Your task to perform on an android device: delete location history Image 0: 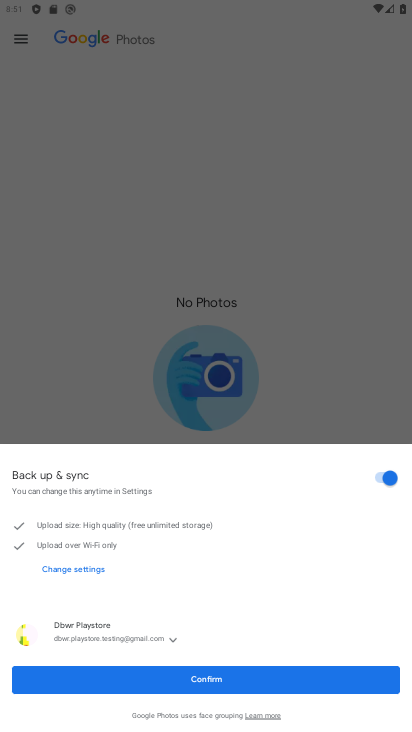
Step 0: press home button
Your task to perform on an android device: delete location history Image 1: 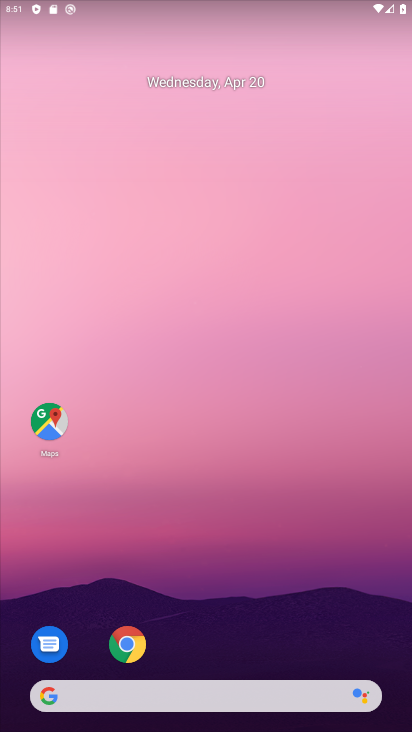
Step 1: drag from (189, 679) to (199, 280)
Your task to perform on an android device: delete location history Image 2: 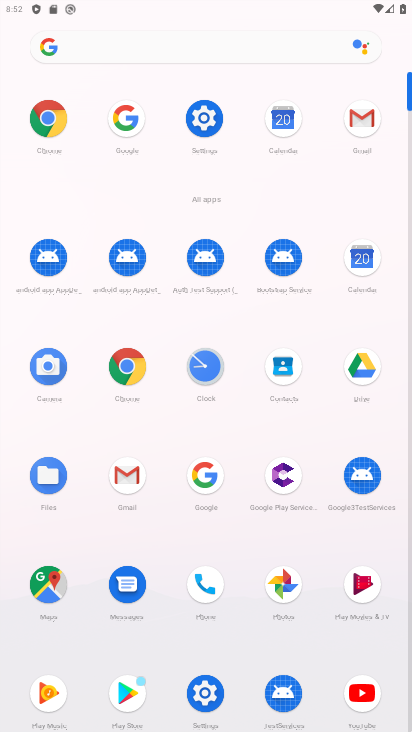
Step 2: click (209, 115)
Your task to perform on an android device: delete location history Image 3: 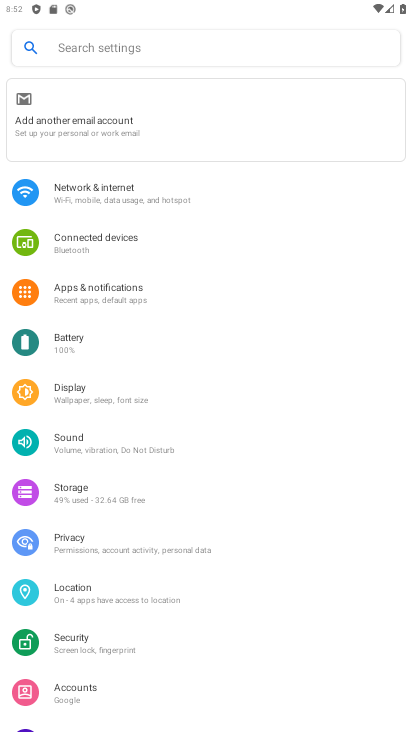
Step 3: click (78, 590)
Your task to perform on an android device: delete location history Image 4: 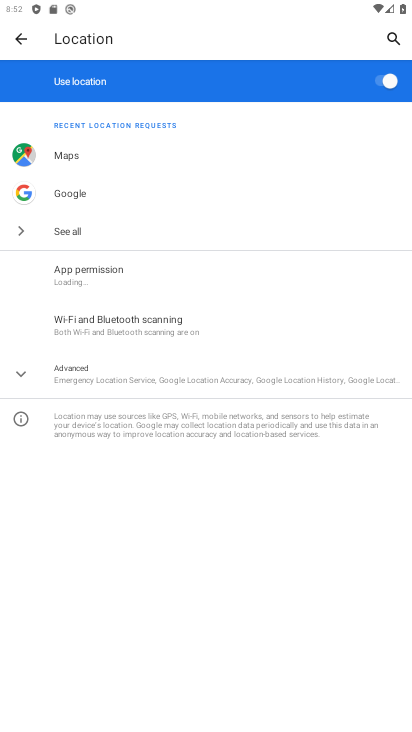
Step 4: click (104, 375)
Your task to perform on an android device: delete location history Image 5: 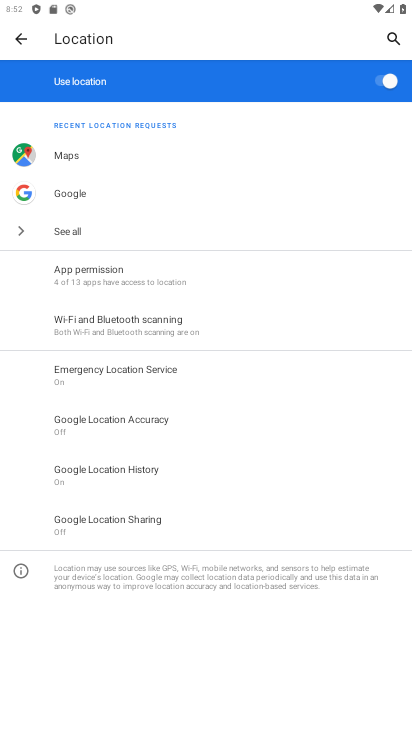
Step 5: click (102, 465)
Your task to perform on an android device: delete location history Image 6: 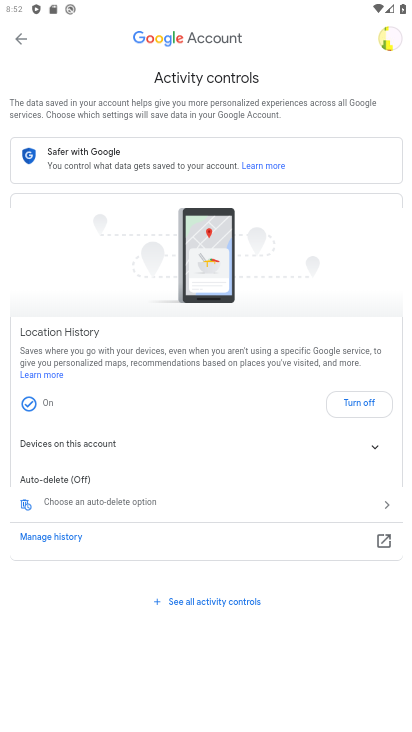
Step 6: click (56, 495)
Your task to perform on an android device: delete location history Image 7: 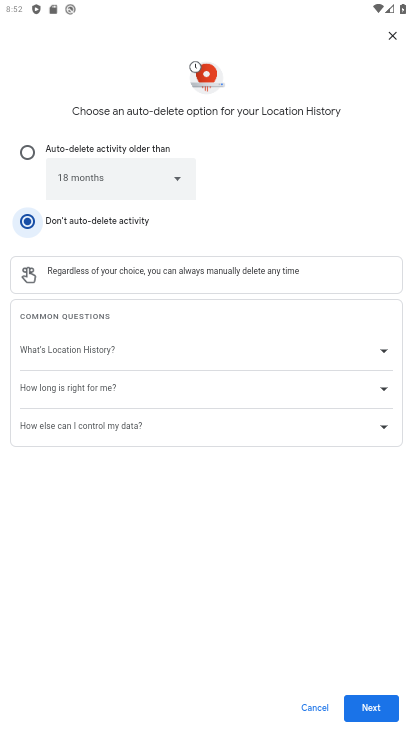
Step 7: click (25, 223)
Your task to perform on an android device: delete location history Image 8: 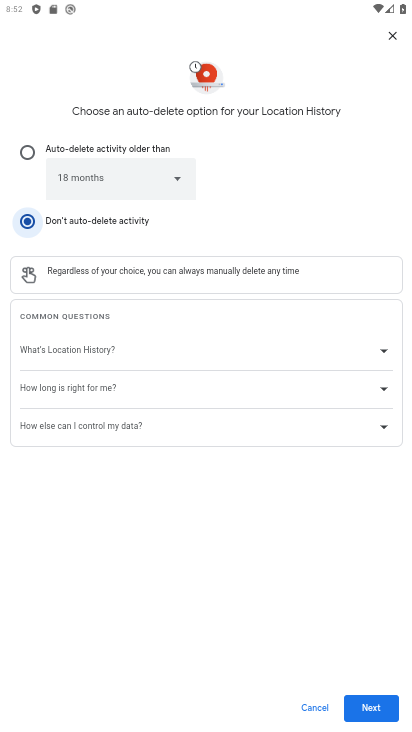
Step 8: click (26, 149)
Your task to perform on an android device: delete location history Image 9: 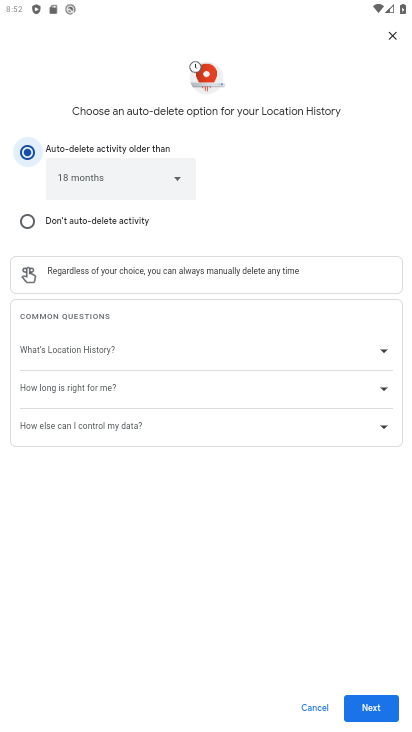
Step 9: click (378, 714)
Your task to perform on an android device: delete location history Image 10: 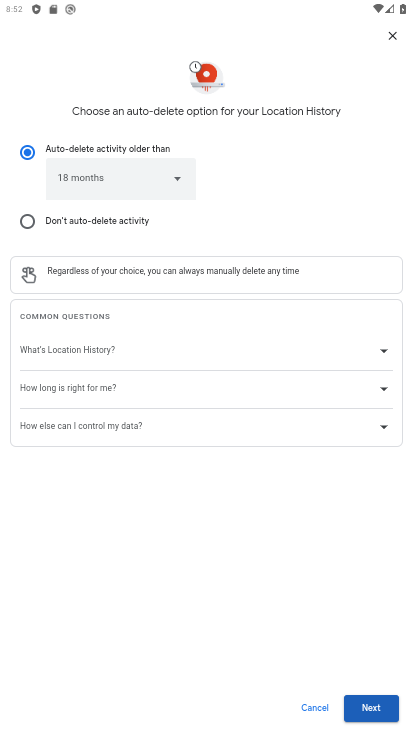
Step 10: click (378, 714)
Your task to perform on an android device: delete location history Image 11: 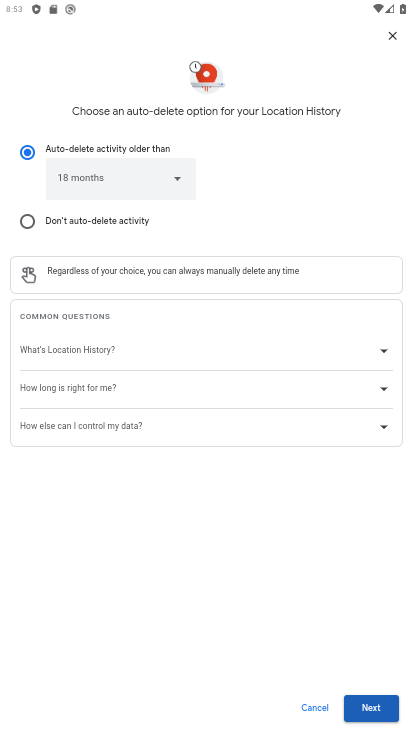
Step 11: click (29, 224)
Your task to perform on an android device: delete location history Image 12: 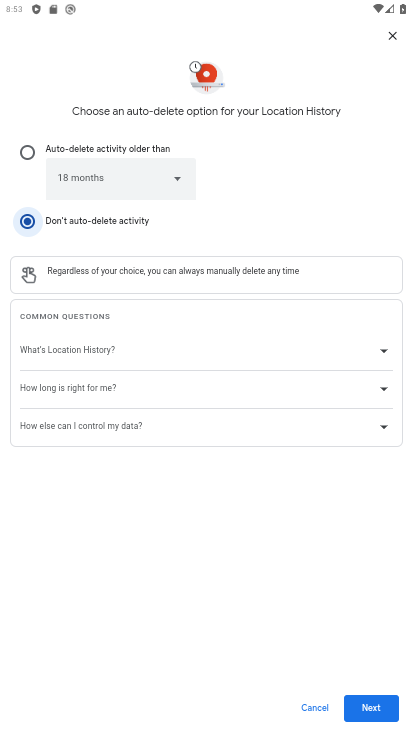
Step 12: click (380, 699)
Your task to perform on an android device: delete location history Image 13: 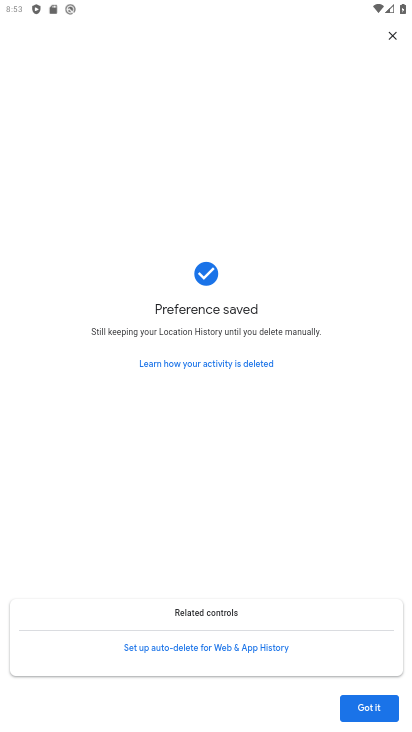
Step 13: task complete